Your task to perform on an android device: turn on sleep mode Image 0: 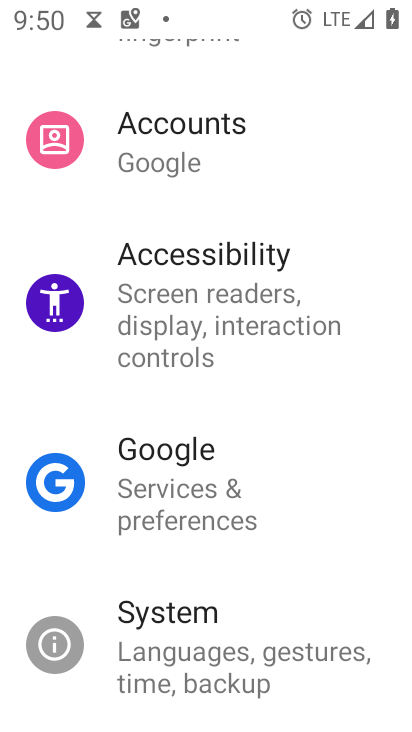
Step 0: press home button
Your task to perform on an android device: turn on sleep mode Image 1: 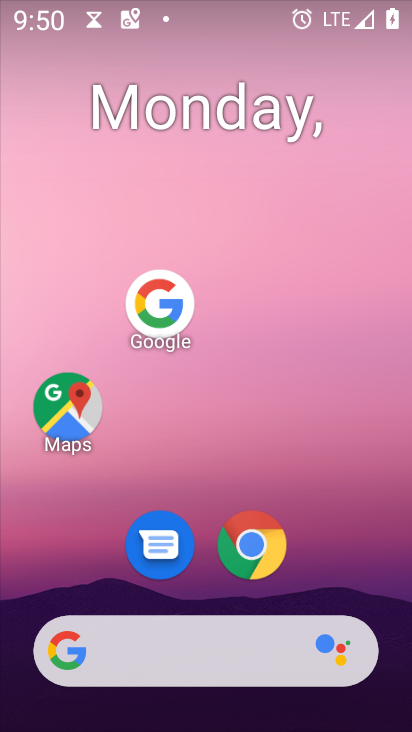
Step 1: drag from (165, 657) to (308, 93)
Your task to perform on an android device: turn on sleep mode Image 2: 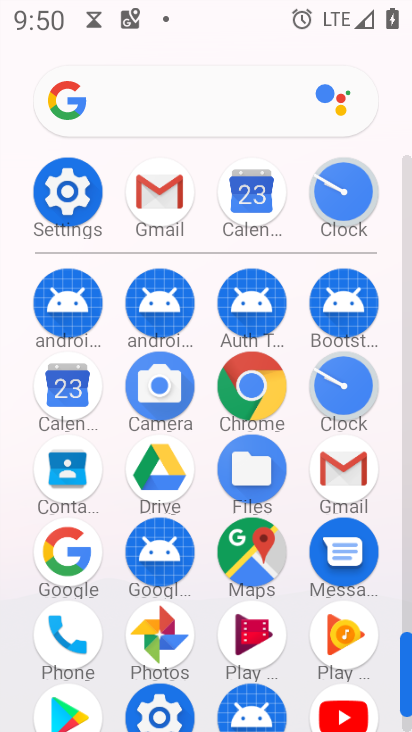
Step 2: click (66, 203)
Your task to perform on an android device: turn on sleep mode Image 3: 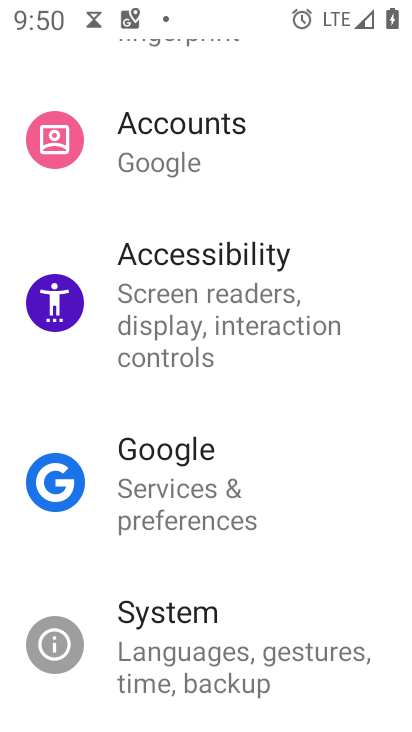
Step 3: drag from (305, 175) to (272, 609)
Your task to perform on an android device: turn on sleep mode Image 4: 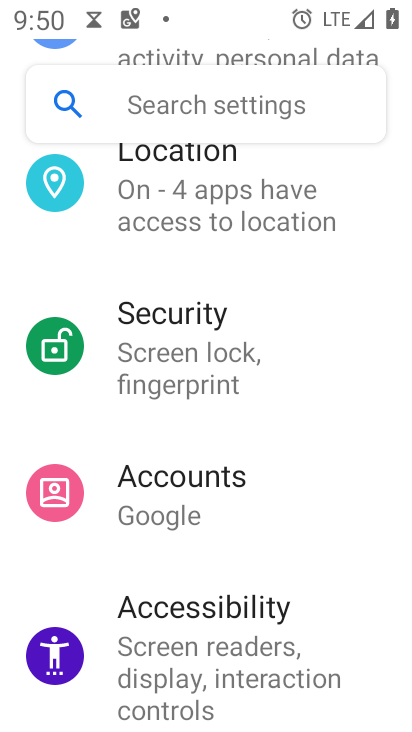
Step 4: drag from (315, 292) to (258, 641)
Your task to perform on an android device: turn on sleep mode Image 5: 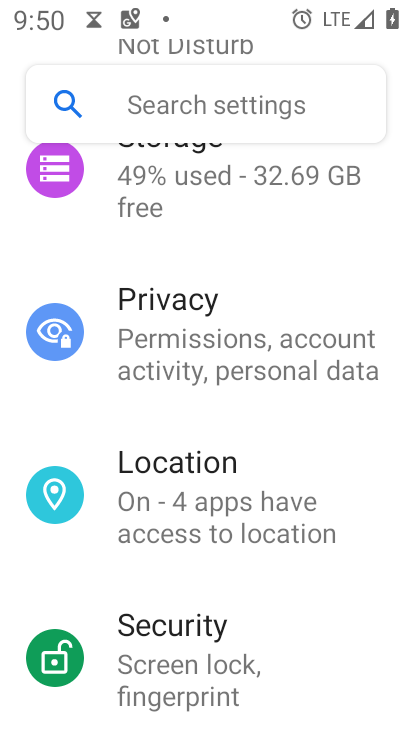
Step 5: drag from (274, 261) to (255, 613)
Your task to perform on an android device: turn on sleep mode Image 6: 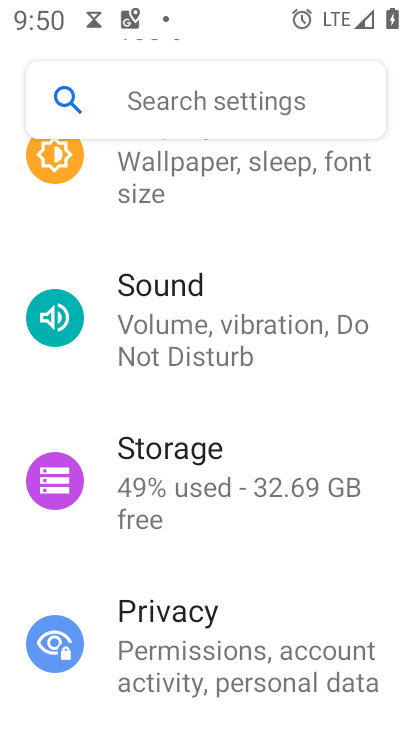
Step 6: drag from (283, 265) to (269, 560)
Your task to perform on an android device: turn on sleep mode Image 7: 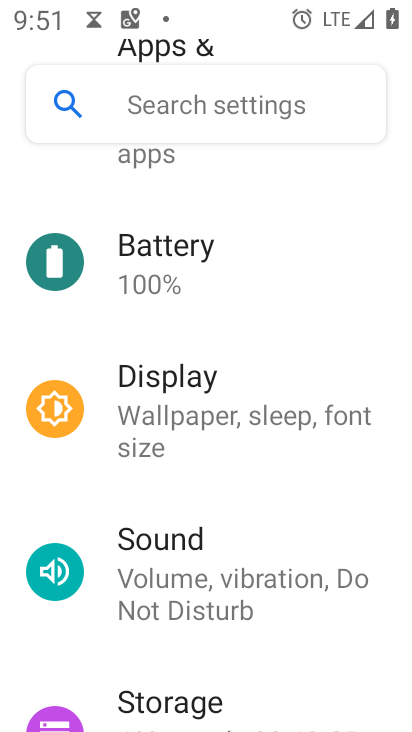
Step 7: click (179, 382)
Your task to perform on an android device: turn on sleep mode Image 8: 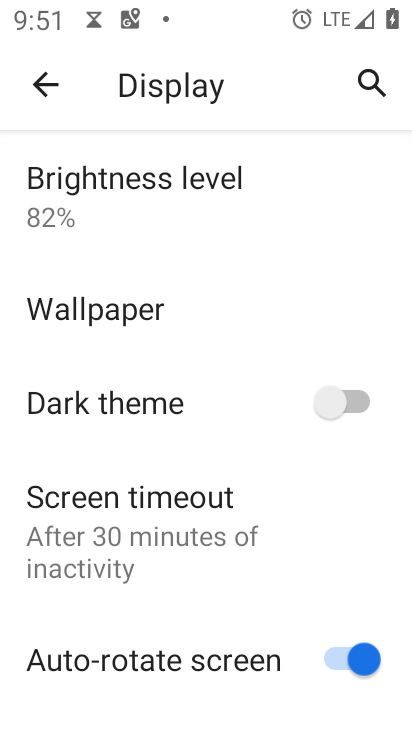
Step 8: task complete